Your task to perform on an android device: turn on javascript in the chrome app Image 0: 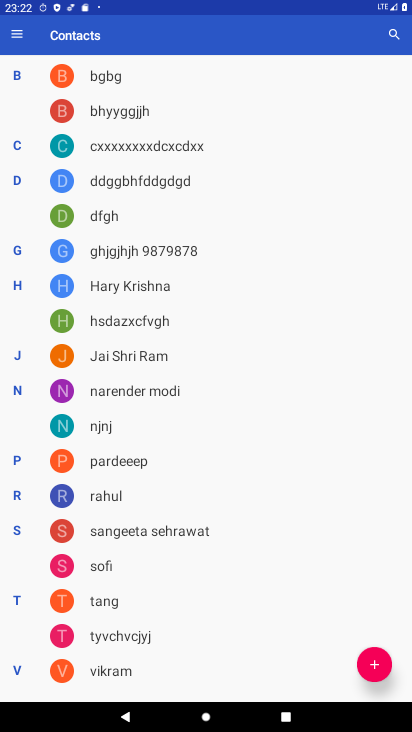
Step 0: press back button
Your task to perform on an android device: turn on javascript in the chrome app Image 1: 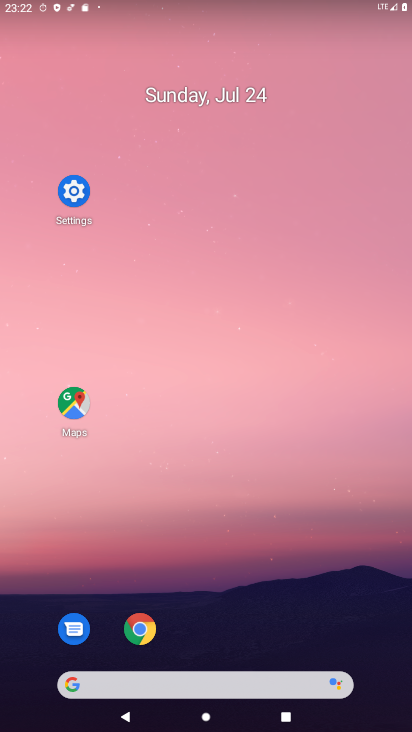
Step 1: drag from (266, 530) to (284, 201)
Your task to perform on an android device: turn on javascript in the chrome app Image 2: 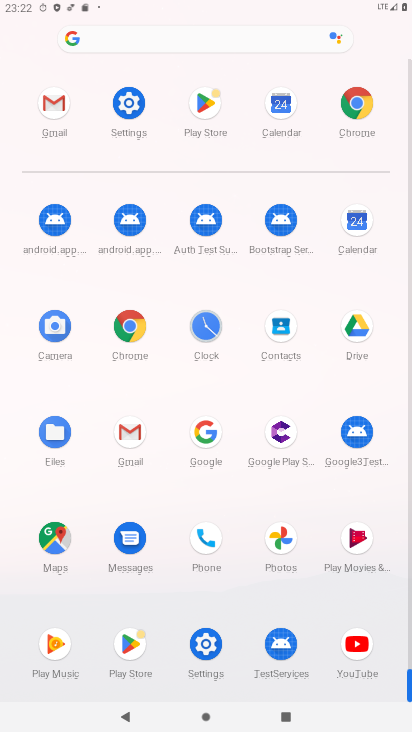
Step 2: click (351, 109)
Your task to perform on an android device: turn on javascript in the chrome app Image 3: 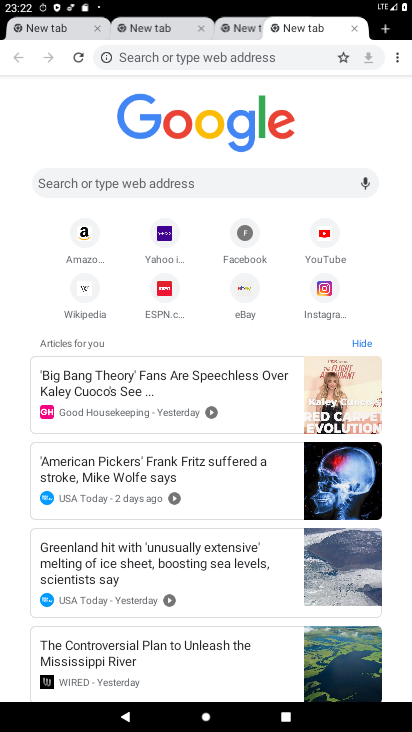
Step 3: click (393, 55)
Your task to perform on an android device: turn on javascript in the chrome app Image 4: 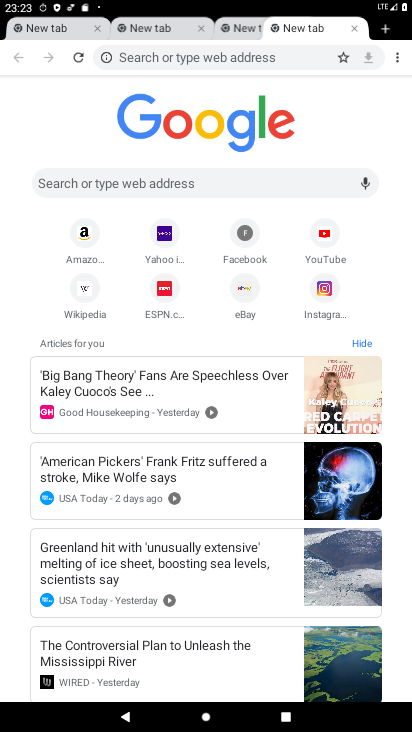
Step 4: drag from (393, 55) to (276, 268)
Your task to perform on an android device: turn on javascript in the chrome app Image 5: 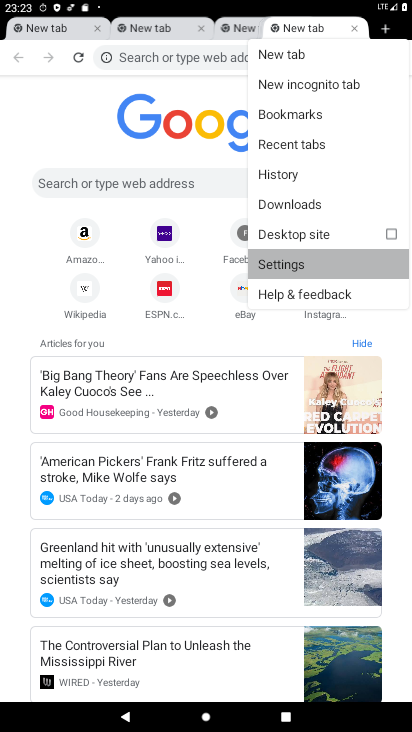
Step 5: click (274, 268)
Your task to perform on an android device: turn on javascript in the chrome app Image 6: 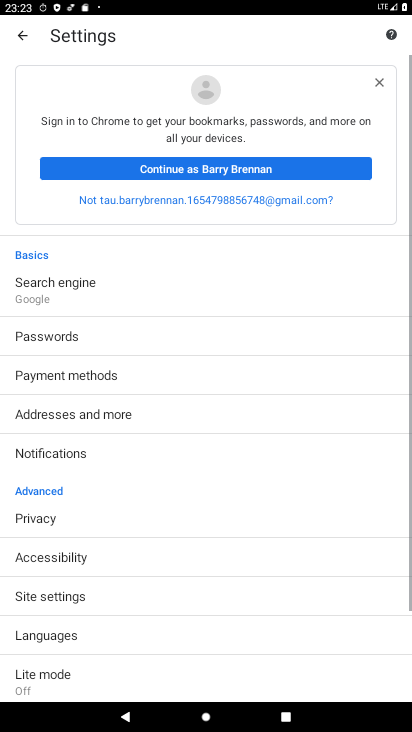
Step 6: click (222, 268)
Your task to perform on an android device: turn on javascript in the chrome app Image 7: 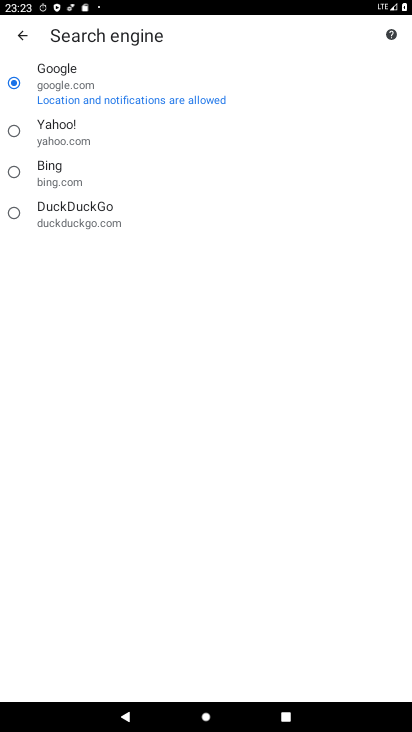
Step 7: click (20, 44)
Your task to perform on an android device: turn on javascript in the chrome app Image 8: 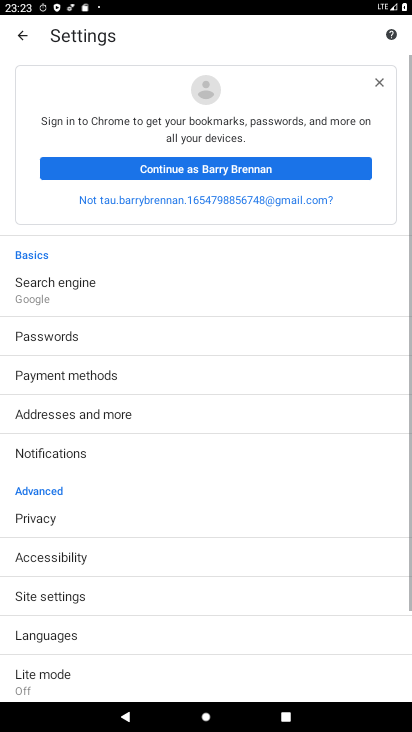
Step 8: drag from (53, 570) to (31, 321)
Your task to perform on an android device: turn on javascript in the chrome app Image 9: 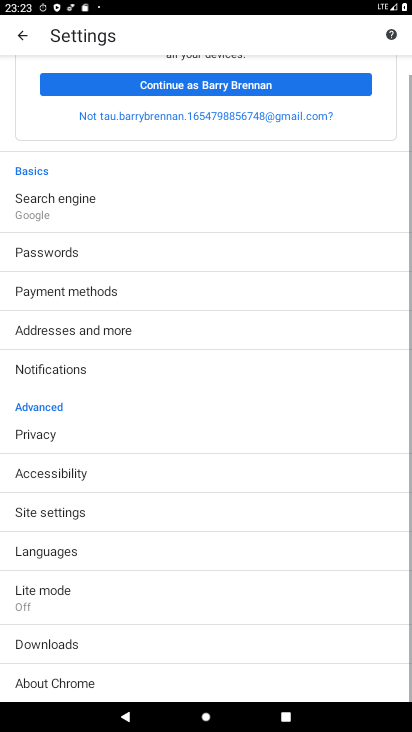
Step 9: drag from (152, 536) to (141, 355)
Your task to perform on an android device: turn on javascript in the chrome app Image 10: 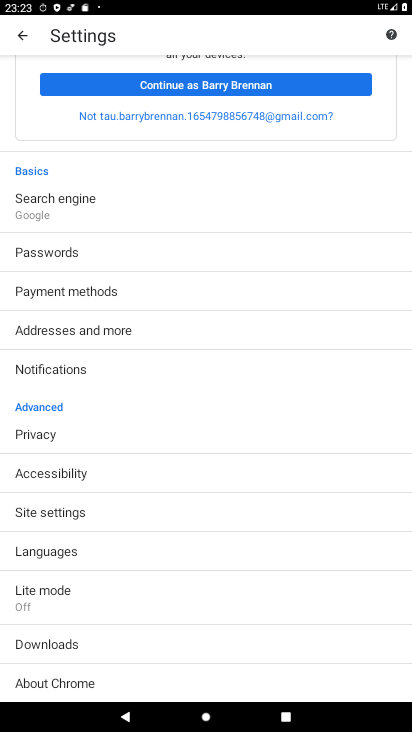
Step 10: click (46, 508)
Your task to perform on an android device: turn on javascript in the chrome app Image 11: 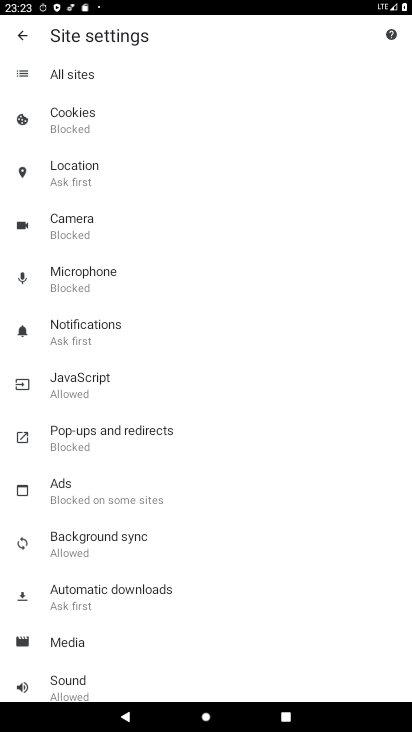
Step 11: click (72, 381)
Your task to perform on an android device: turn on javascript in the chrome app Image 12: 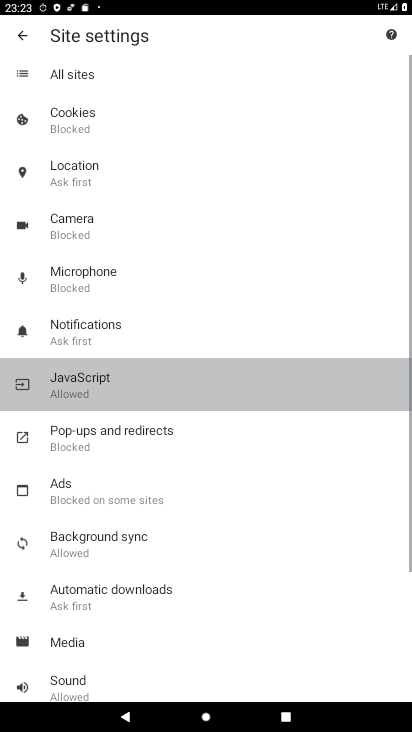
Step 12: click (72, 381)
Your task to perform on an android device: turn on javascript in the chrome app Image 13: 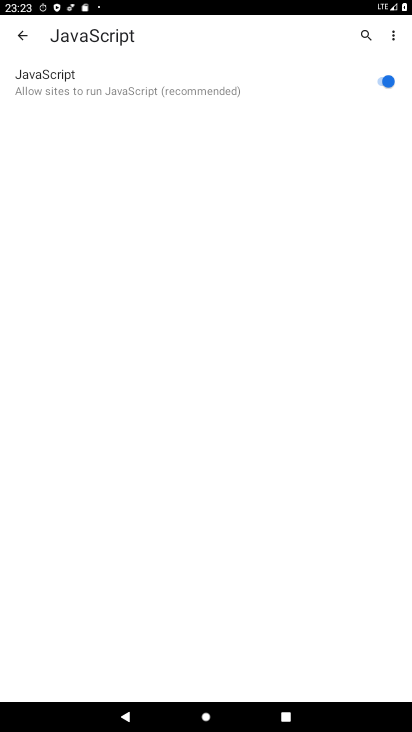
Step 13: task complete